Your task to perform on an android device: What's on my calendar tomorrow? Image 0: 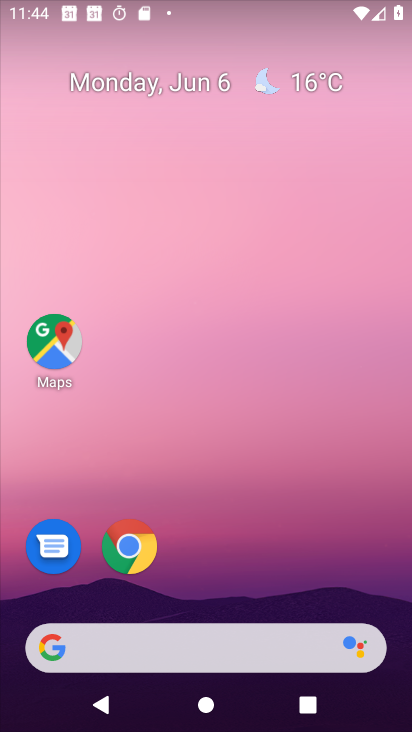
Step 0: drag from (206, 584) to (258, 219)
Your task to perform on an android device: What's on my calendar tomorrow? Image 1: 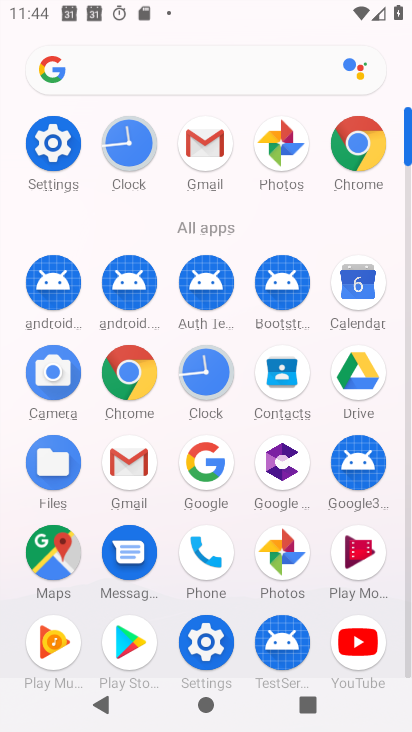
Step 1: click (365, 308)
Your task to perform on an android device: What's on my calendar tomorrow? Image 2: 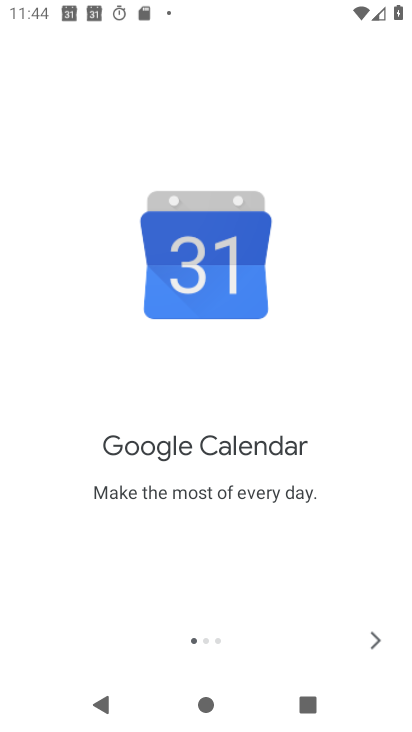
Step 2: click (367, 639)
Your task to perform on an android device: What's on my calendar tomorrow? Image 3: 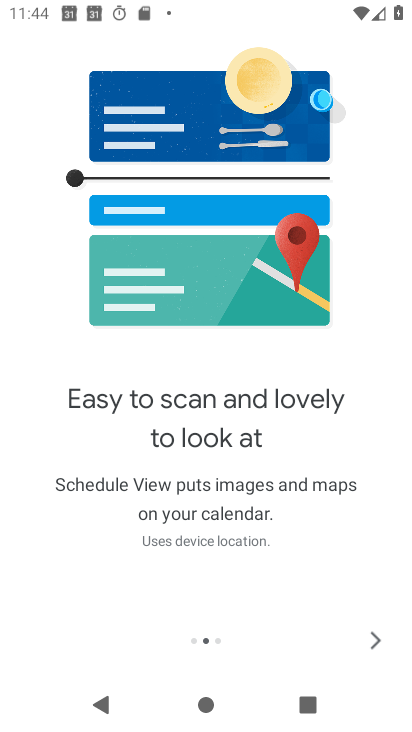
Step 3: click (367, 639)
Your task to perform on an android device: What's on my calendar tomorrow? Image 4: 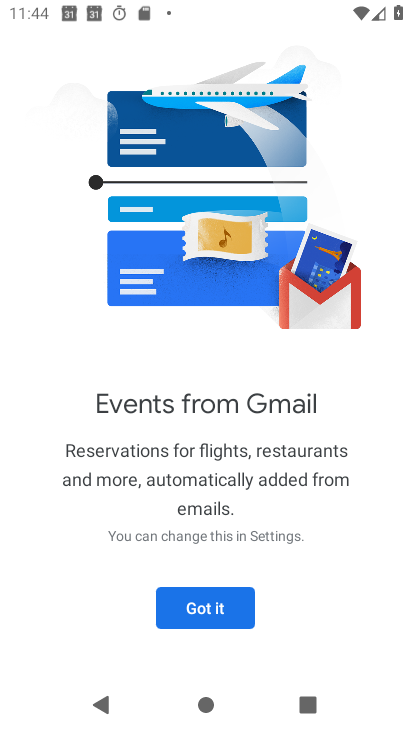
Step 4: click (206, 610)
Your task to perform on an android device: What's on my calendar tomorrow? Image 5: 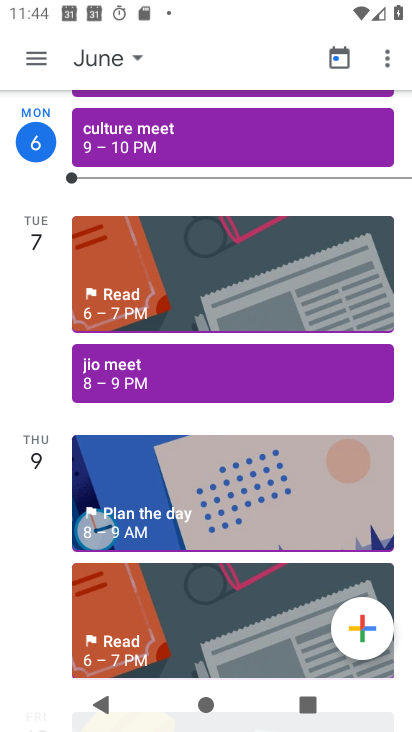
Step 5: click (41, 58)
Your task to perform on an android device: What's on my calendar tomorrow? Image 6: 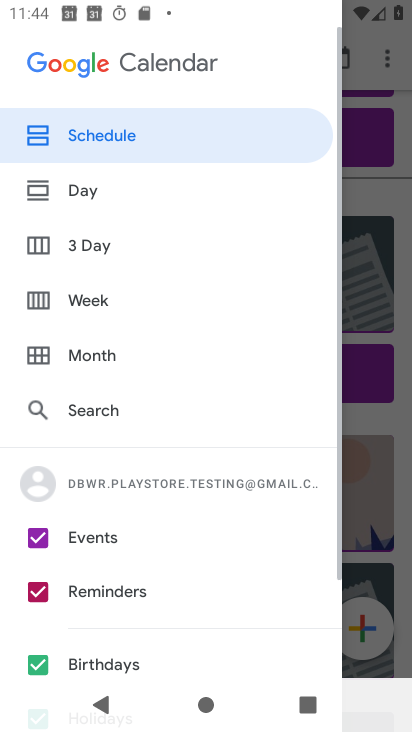
Step 6: click (90, 245)
Your task to perform on an android device: What's on my calendar tomorrow? Image 7: 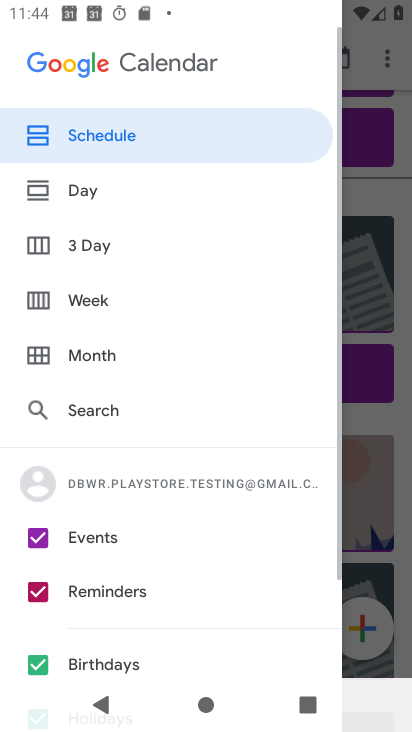
Step 7: click (90, 245)
Your task to perform on an android device: What's on my calendar tomorrow? Image 8: 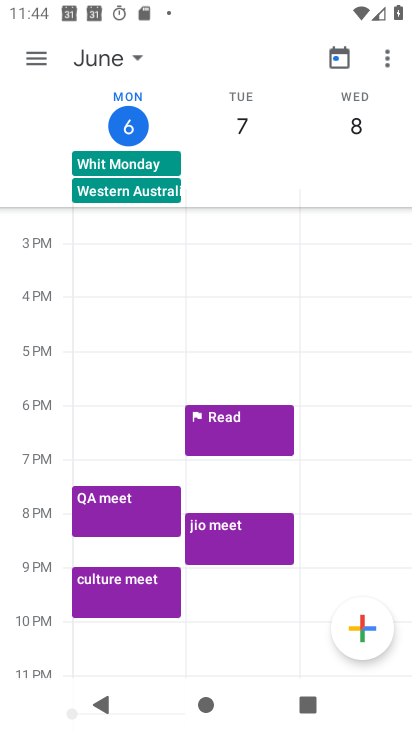
Step 8: task complete